Your task to perform on an android device: turn on showing notifications on the lock screen Image 0: 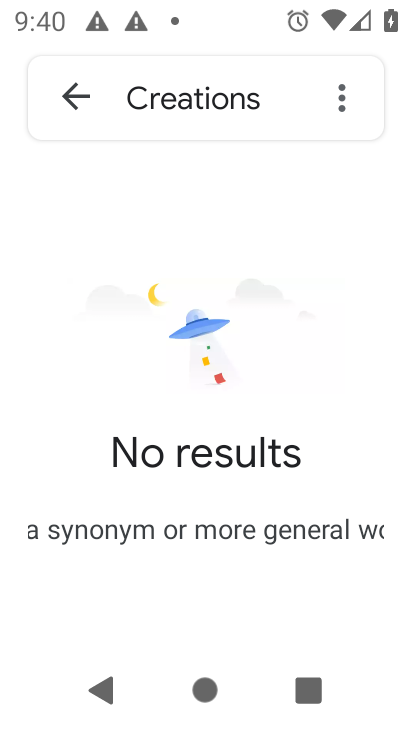
Step 0: press home button
Your task to perform on an android device: turn on showing notifications on the lock screen Image 1: 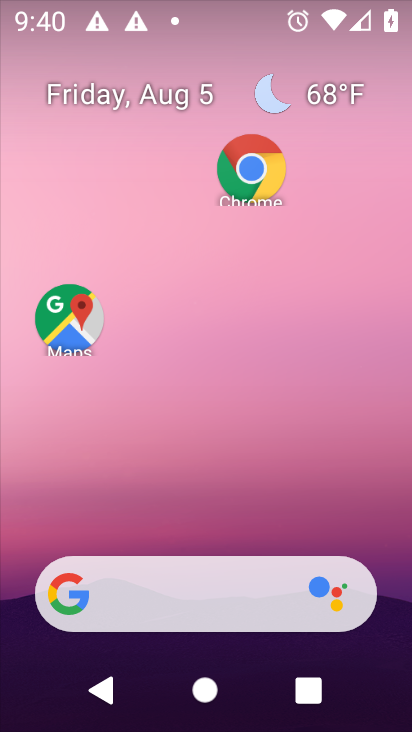
Step 1: drag from (212, 522) to (168, 215)
Your task to perform on an android device: turn on showing notifications on the lock screen Image 2: 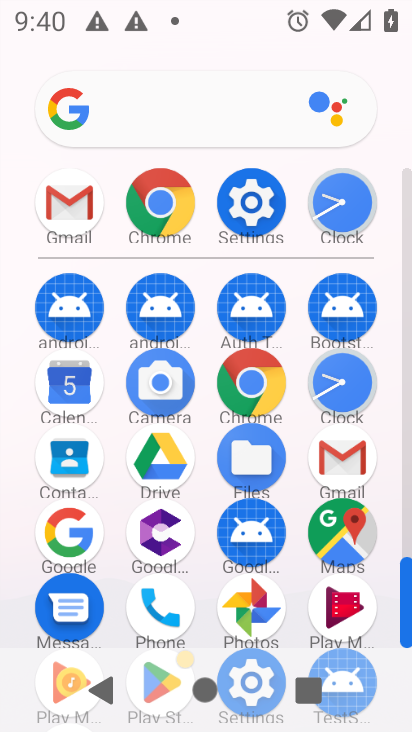
Step 2: click (238, 210)
Your task to perform on an android device: turn on showing notifications on the lock screen Image 3: 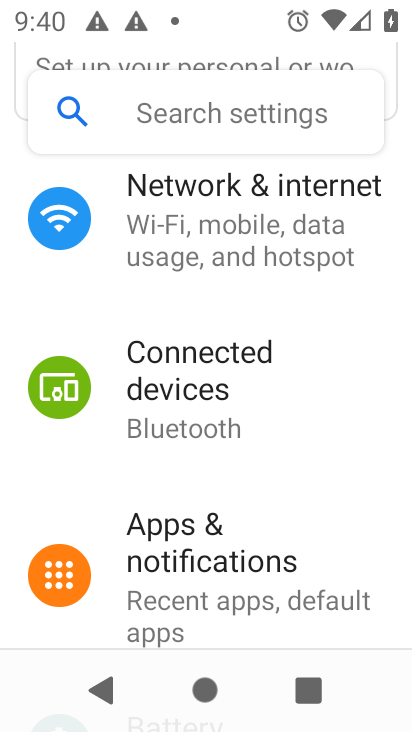
Step 3: click (278, 592)
Your task to perform on an android device: turn on showing notifications on the lock screen Image 4: 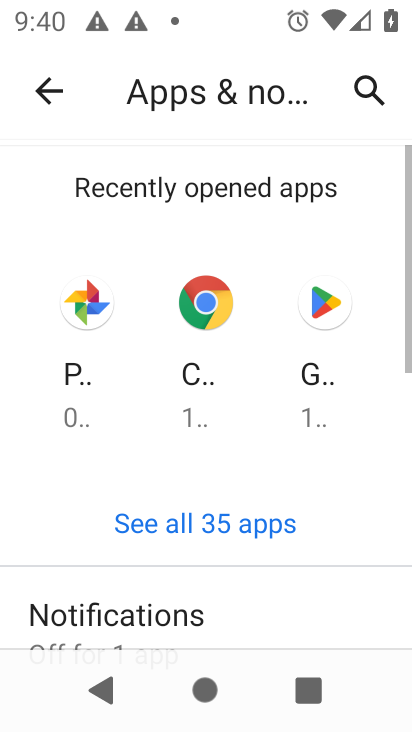
Step 4: click (271, 607)
Your task to perform on an android device: turn on showing notifications on the lock screen Image 5: 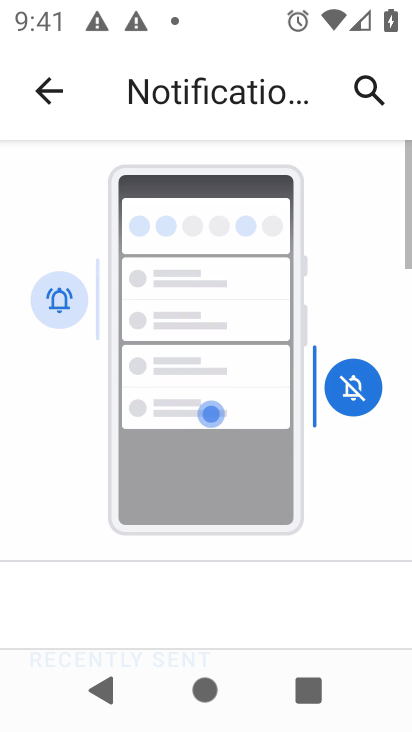
Step 5: drag from (258, 561) to (222, 236)
Your task to perform on an android device: turn on showing notifications on the lock screen Image 6: 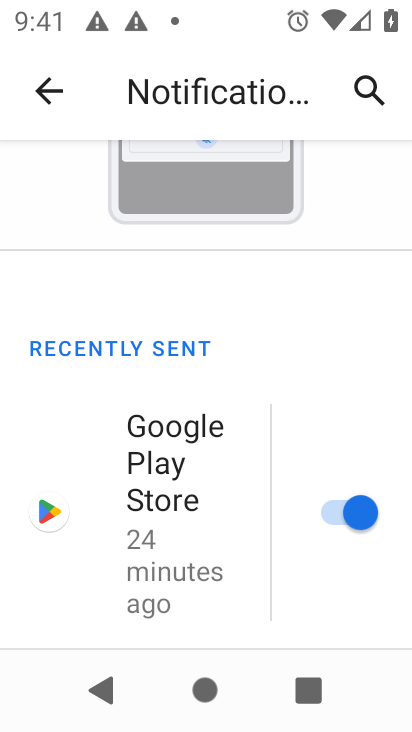
Step 6: drag from (231, 617) to (236, 266)
Your task to perform on an android device: turn on showing notifications on the lock screen Image 7: 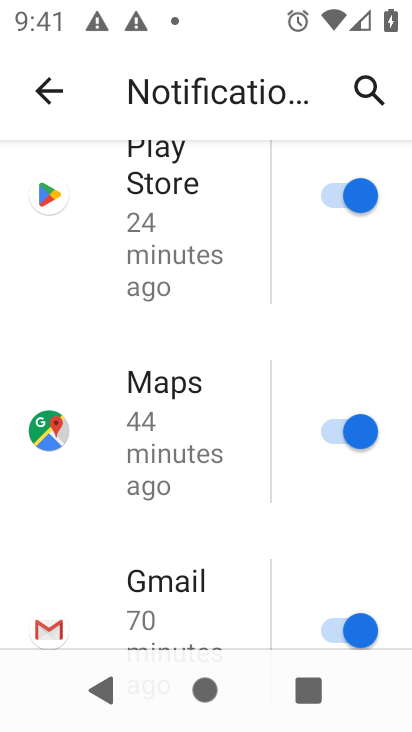
Step 7: drag from (239, 632) to (247, 280)
Your task to perform on an android device: turn on showing notifications on the lock screen Image 8: 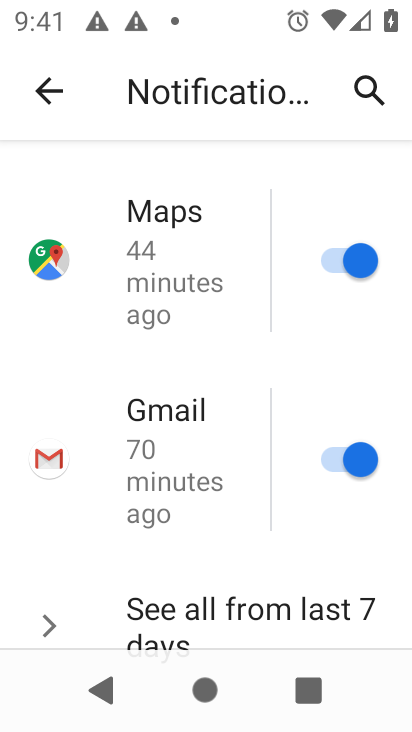
Step 8: drag from (253, 580) to (252, 190)
Your task to perform on an android device: turn on showing notifications on the lock screen Image 9: 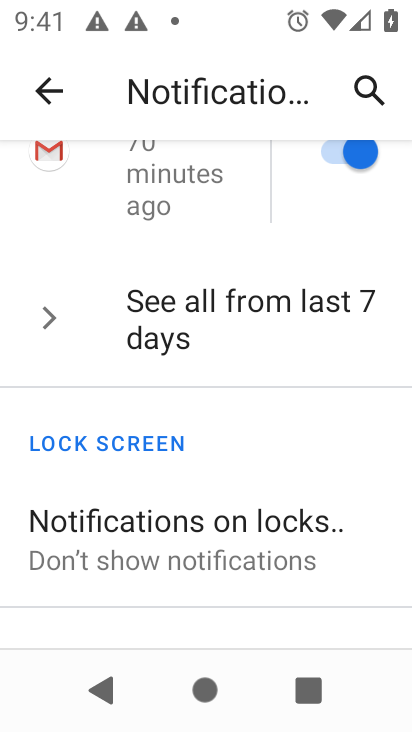
Step 9: click (235, 558)
Your task to perform on an android device: turn on showing notifications on the lock screen Image 10: 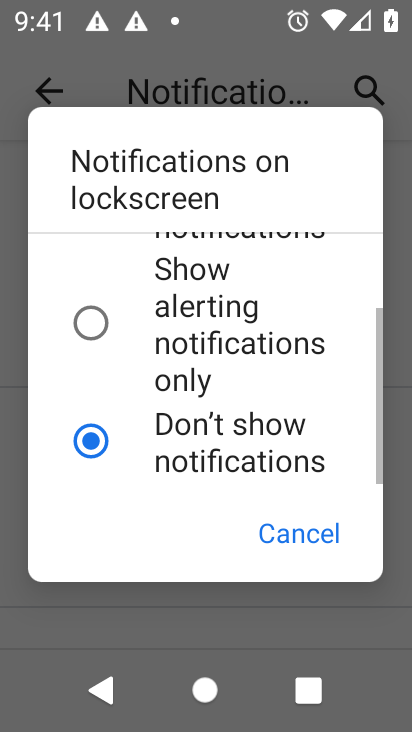
Step 10: drag from (216, 301) to (219, 484)
Your task to perform on an android device: turn on showing notifications on the lock screen Image 11: 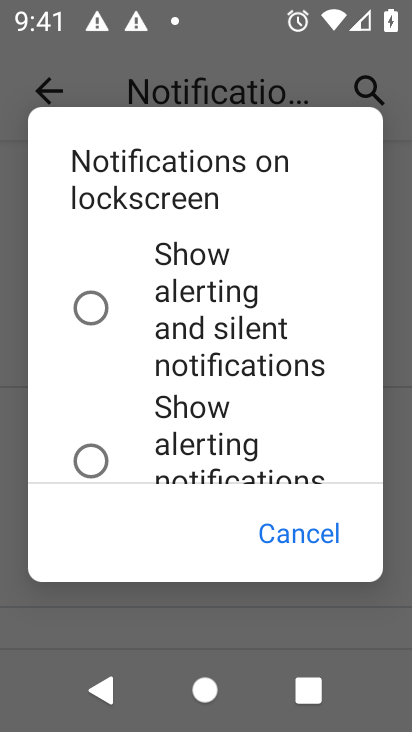
Step 11: click (195, 341)
Your task to perform on an android device: turn on showing notifications on the lock screen Image 12: 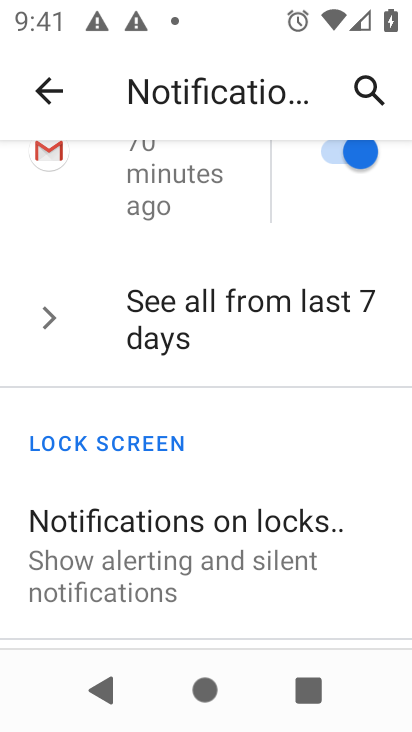
Step 12: task complete